Your task to perform on an android device: What is the recent news? Image 0: 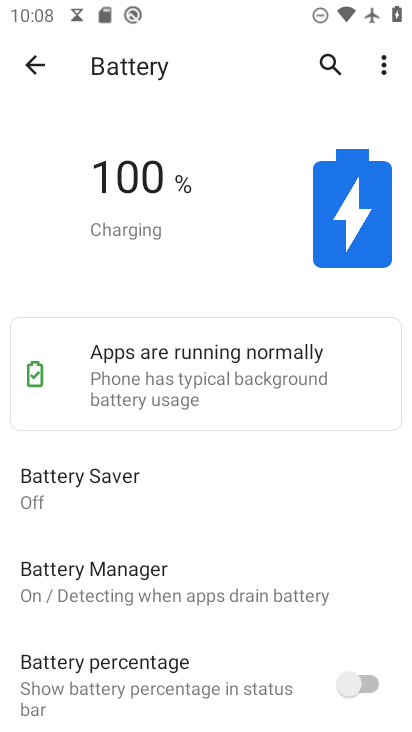
Step 0: press home button
Your task to perform on an android device: What is the recent news? Image 1: 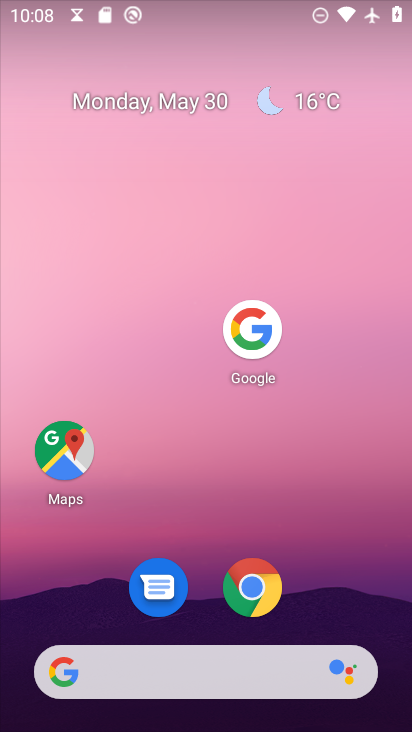
Step 1: click (69, 672)
Your task to perform on an android device: What is the recent news? Image 2: 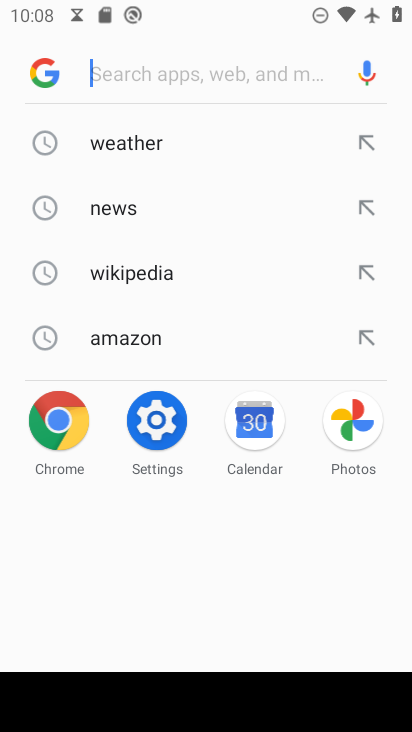
Step 2: click (115, 210)
Your task to perform on an android device: What is the recent news? Image 3: 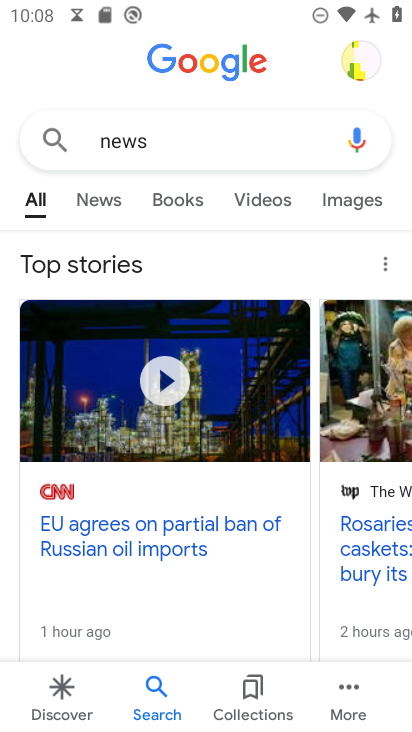
Step 3: click (105, 197)
Your task to perform on an android device: What is the recent news? Image 4: 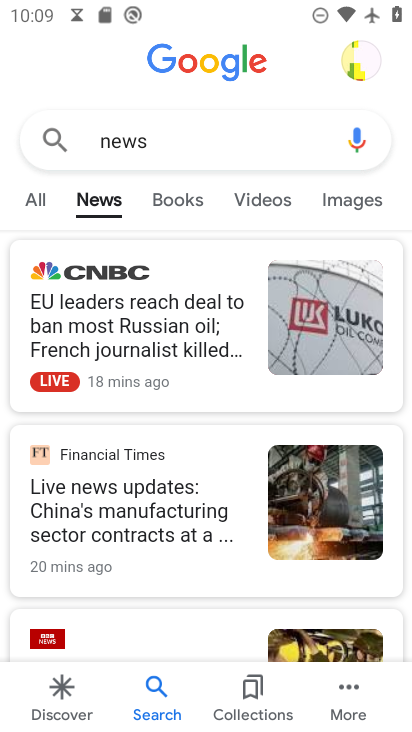
Step 4: task complete